Your task to perform on an android device: Go to Google maps Image 0: 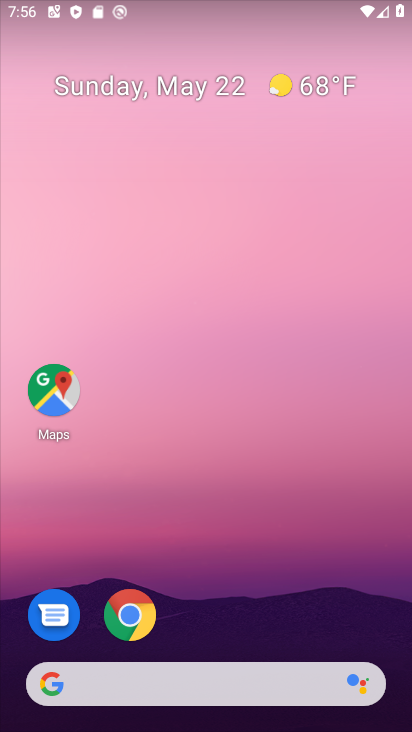
Step 0: click (47, 391)
Your task to perform on an android device: Go to Google maps Image 1: 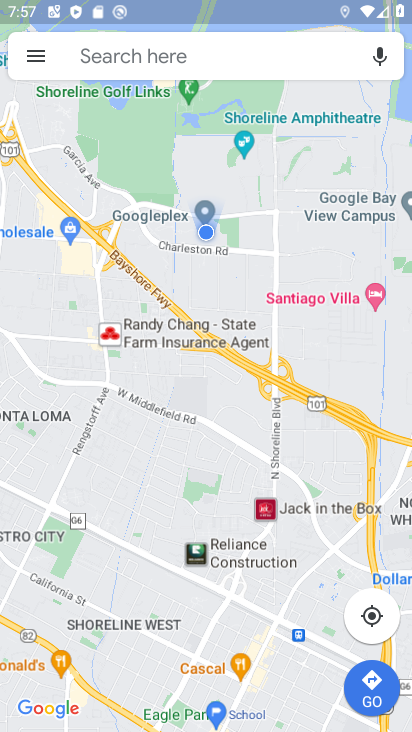
Step 1: task complete